Your task to perform on an android device: turn smart compose on in the gmail app Image 0: 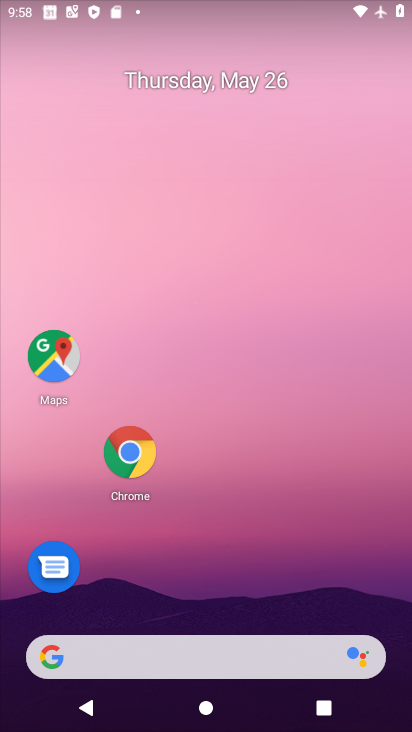
Step 0: drag from (224, 654) to (297, 114)
Your task to perform on an android device: turn smart compose on in the gmail app Image 1: 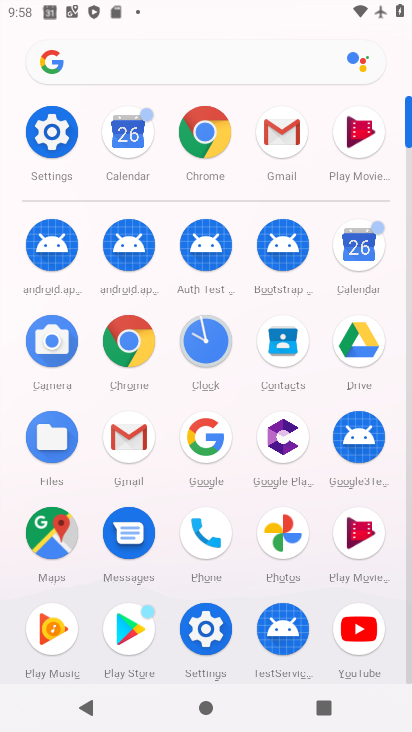
Step 1: click (286, 140)
Your task to perform on an android device: turn smart compose on in the gmail app Image 2: 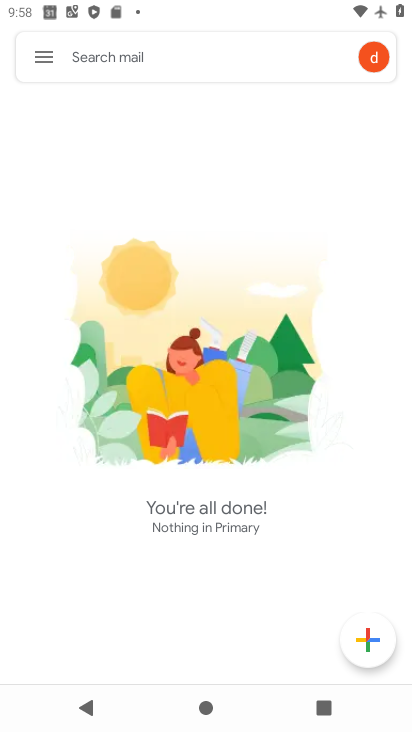
Step 2: click (42, 58)
Your task to perform on an android device: turn smart compose on in the gmail app Image 3: 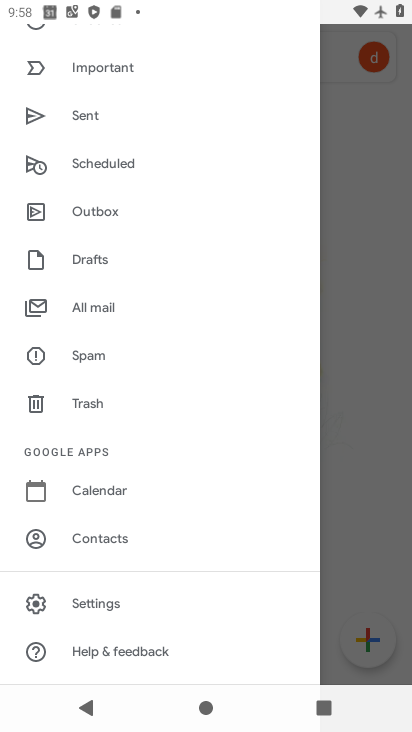
Step 3: click (112, 612)
Your task to perform on an android device: turn smart compose on in the gmail app Image 4: 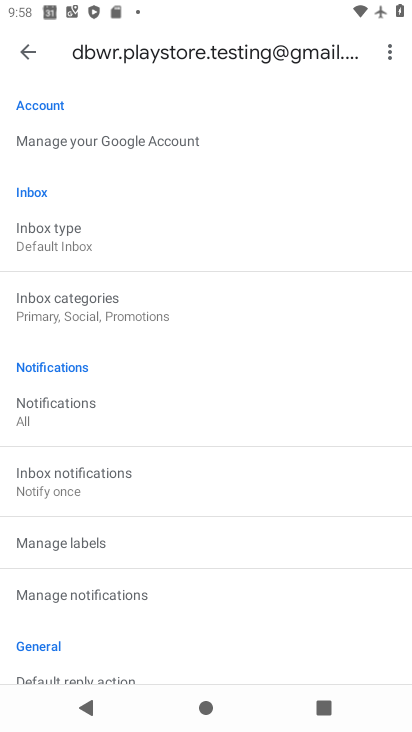
Step 4: task complete